Your task to perform on an android device: change timer sound Image 0: 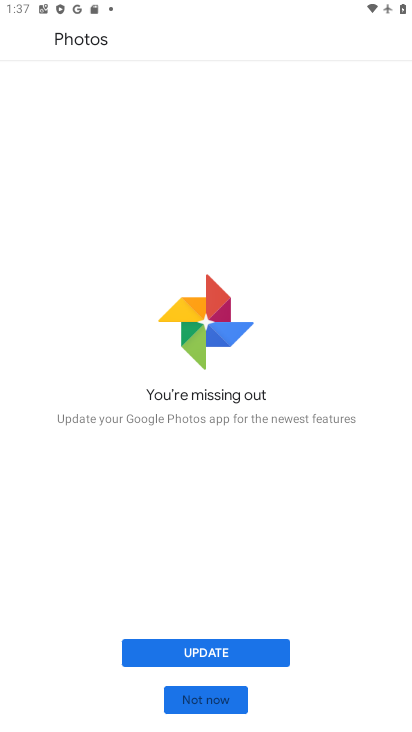
Step 0: press home button
Your task to perform on an android device: change timer sound Image 1: 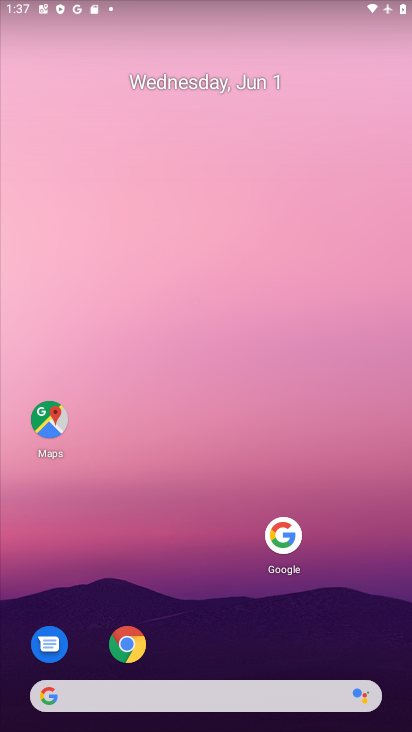
Step 1: drag from (160, 703) to (296, 130)
Your task to perform on an android device: change timer sound Image 2: 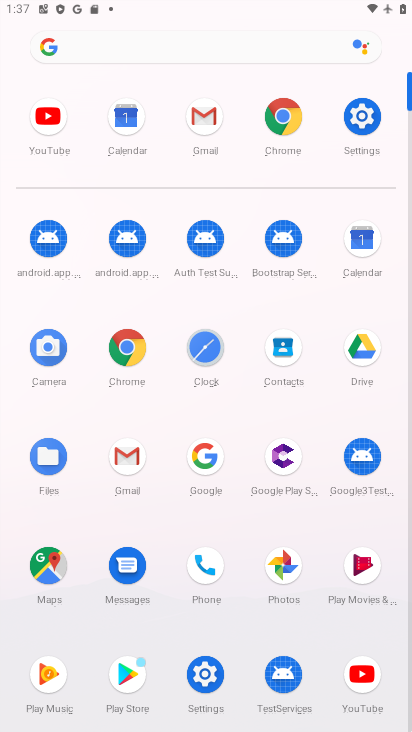
Step 2: click (202, 351)
Your task to perform on an android device: change timer sound Image 3: 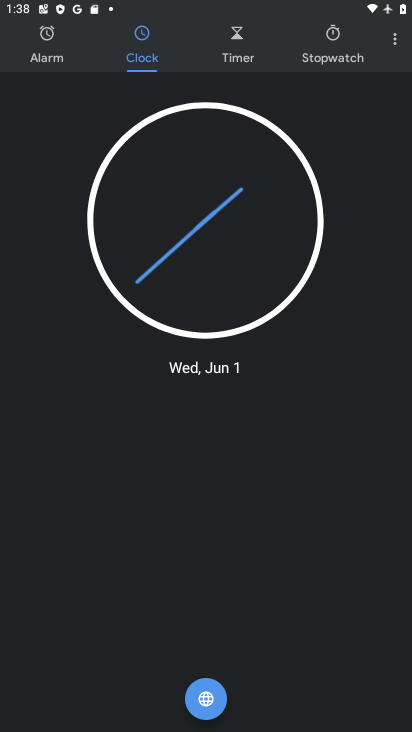
Step 3: click (395, 42)
Your task to perform on an android device: change timer sound Image 4: 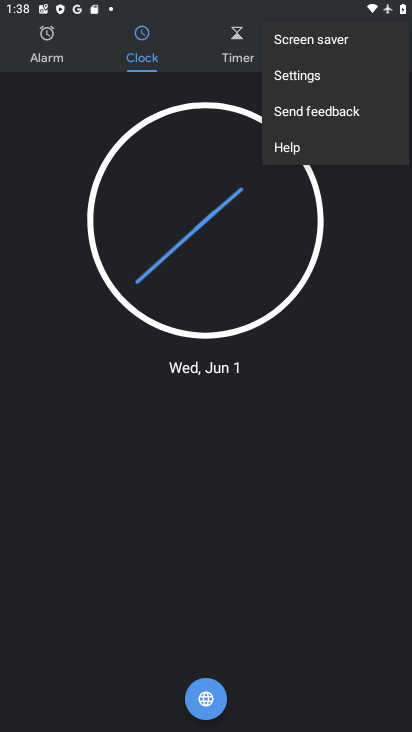
Step 4: click (299, 72)
Your task to perform on an android device: change timer sound Image 5: 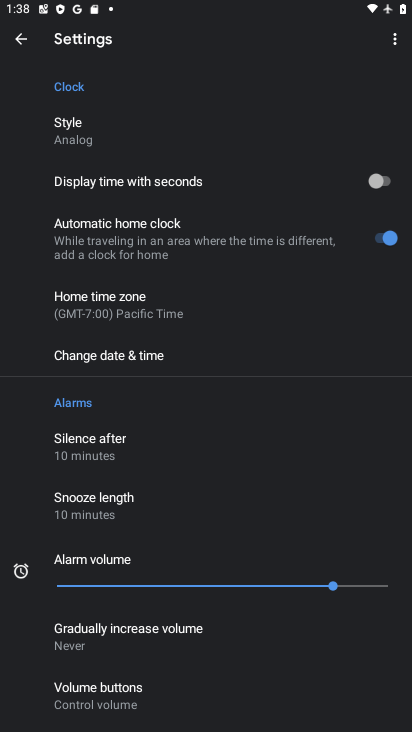
Step 5: drag from (209, 504) to (298, 178)
Your task to perform on an android device: change timer sound Image 6: 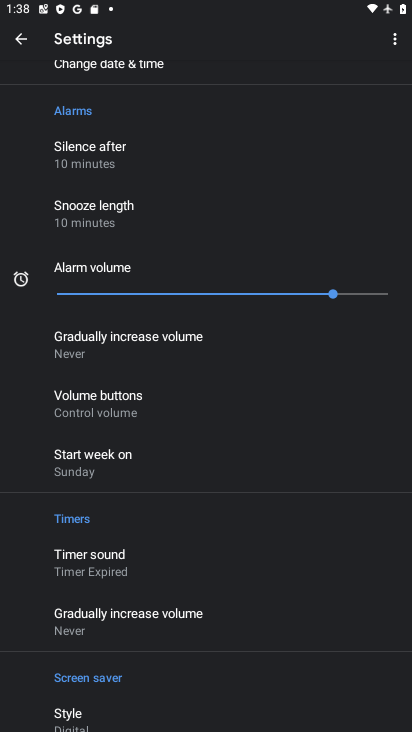
Step 6: drag from (242, 608) to (270, 417)
Your task to perform on an android device: change timer sound Image 7: 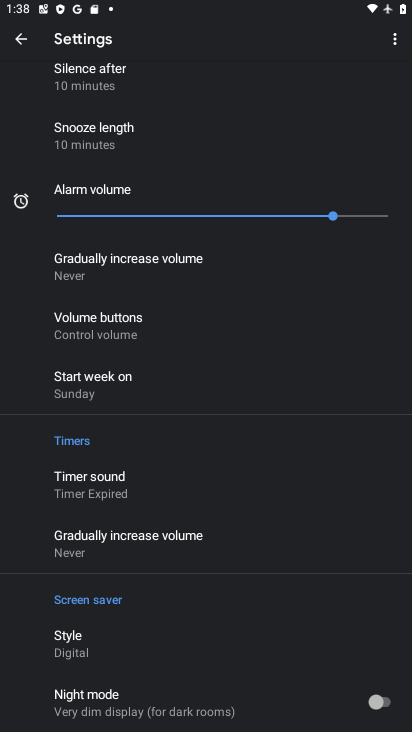
Step 7: click (103, 480)
Your task to perform on an android device: change timer sound Image 8: 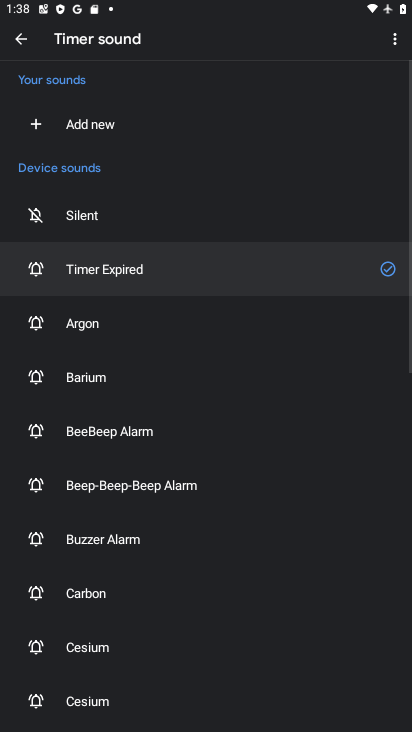
Step 8: click (91, 386)
Your task to perform on an android device: change timer sound Image 9: 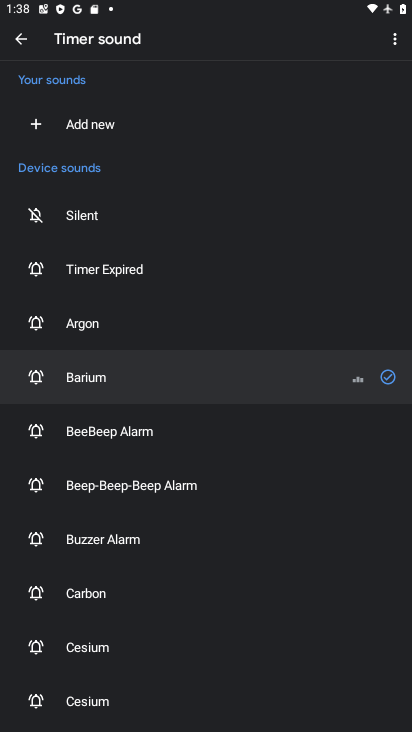
Step 9: task complete